Your task to perform on an android device: Show me productivity apps on the Play Store Image 0: 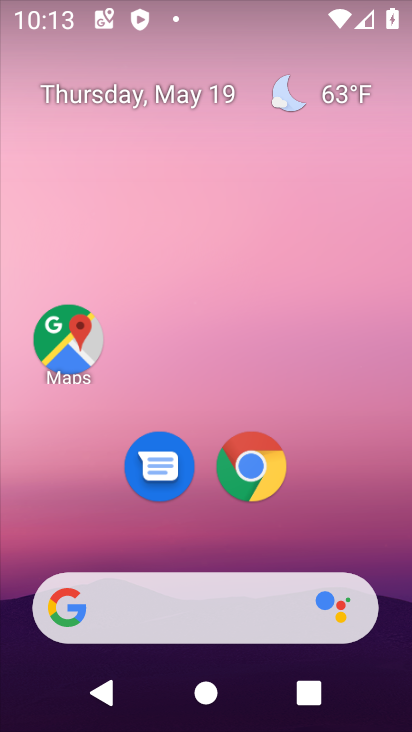
Step 0: drag from (406, 626) to (308, 35)
Your task to perform on an android device: Show me productivity apps on the Play Store Image 1: 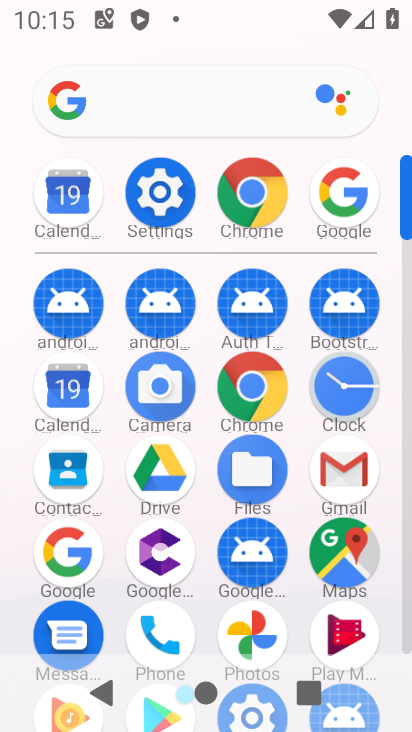
Step 1: drag from (186, 668) to (172, 106)
Your task to perform on an android device: Show me productivity apps on the Play Store Image 2: 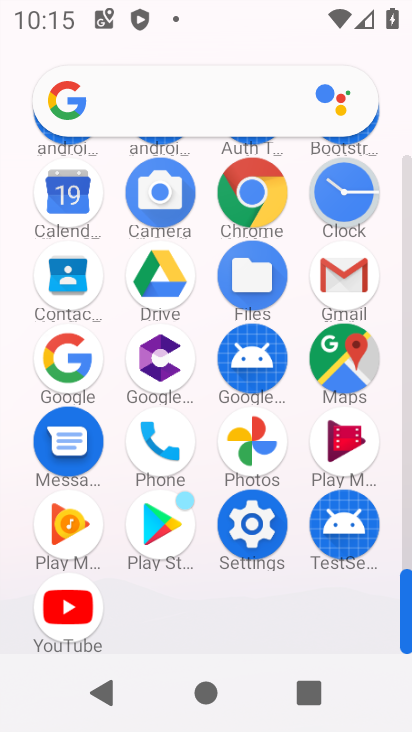
Step 2: click (166, 549)
Your task to perform on an android device: Show me productivity apps on the Play Store Image 3: 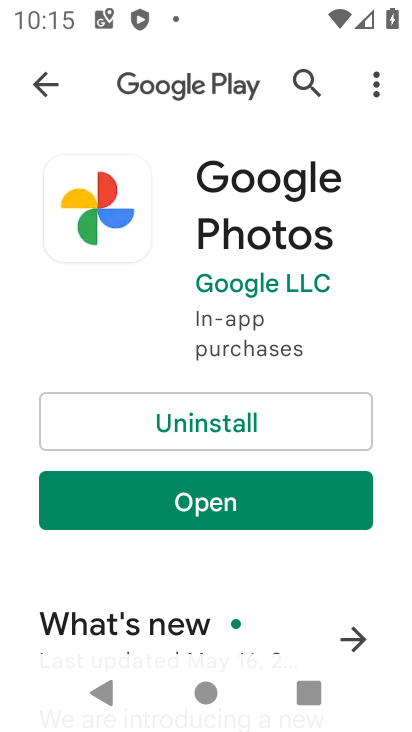
Step 3: press back button
Your task to perform on an android device: Show me productivity apps on the Play Store Image 4: 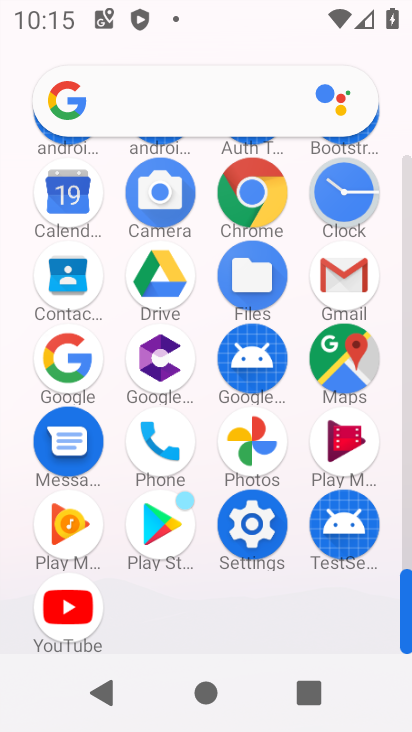
Step 4: click (171, 528)
Your task to perform on an android device: Show me productivity apps on the Play Store Image 5: 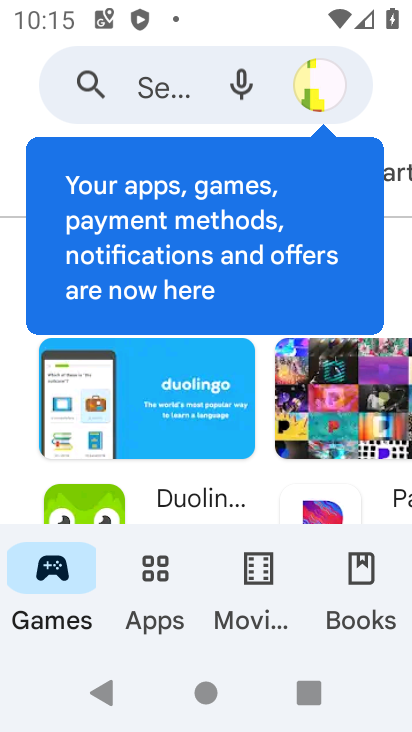
Step 5: task complete